Your task to perform on an android device: Do I have any events tomorrow? Image 0: 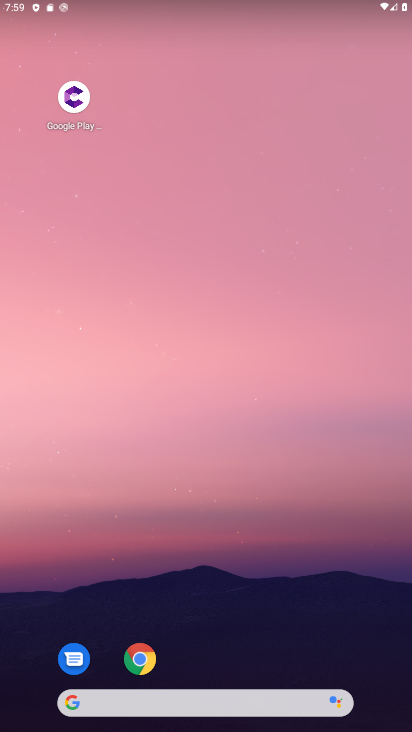
Step 0: drag from (239, 667) to (164, 176)
Your task to perform on an android device: Do I have any events tomorrow? Image 1: 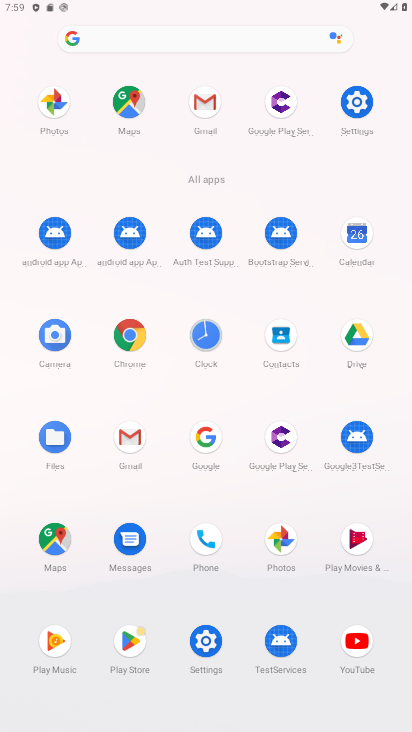
Step 1: click (348, 230)
Your task to perform on an android device: Do I have any events tomorrow? Image 2: 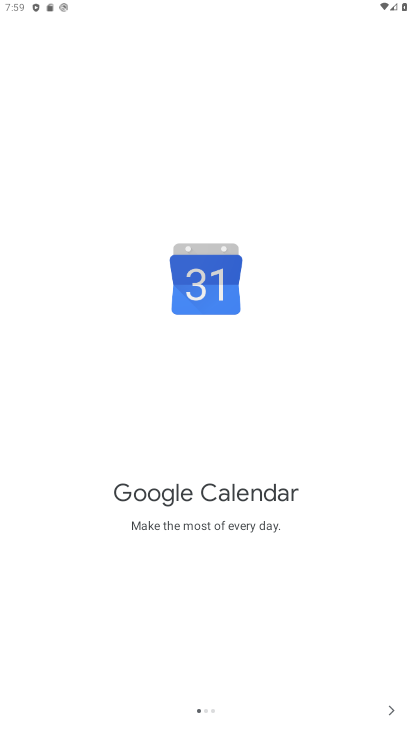
Step 2: click (385, 705)
Your task to perform on an android device: Do I have any events tomorrow? Image 3: 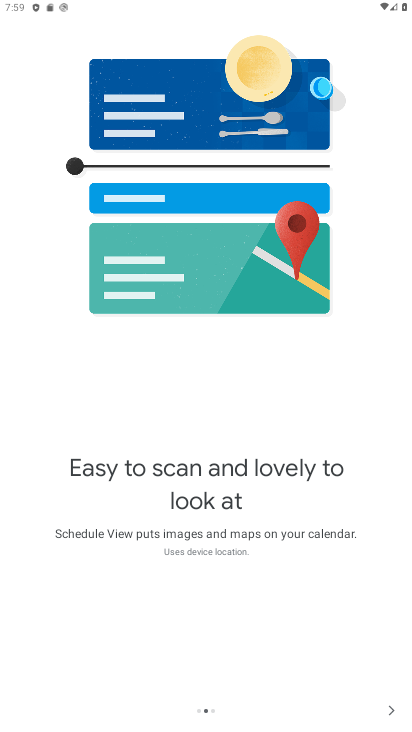
Step 3: click (385, 705)
Your task to perform on an android device: Do I have any events tomorrow? Image 4: 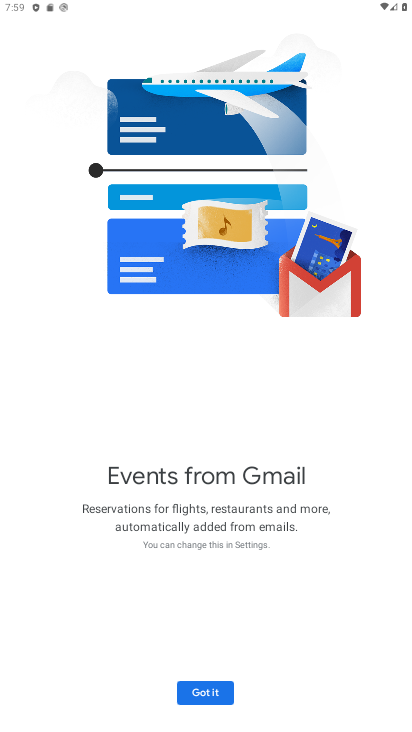
Step 4: click (212, 689)
Your task to perform on an android device: Do I have any events tomorrow? Image 5: 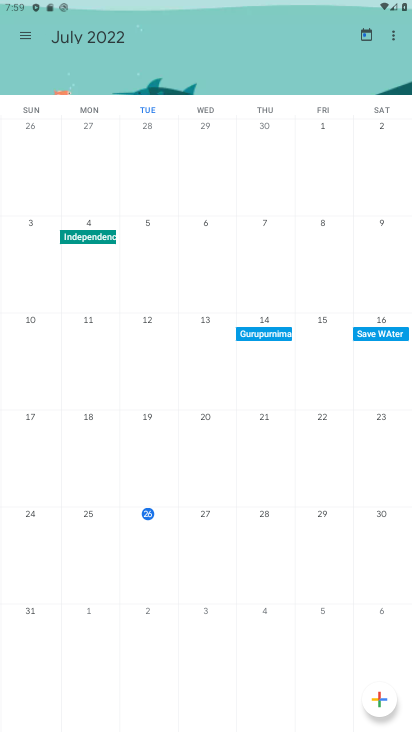
Step 5: click (201, 522)
Your task to perform on an android device: Do I have any events tomorrow? Image 6: 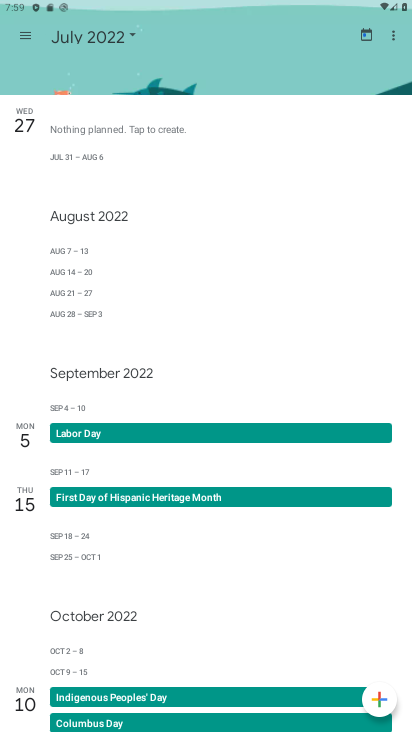
Step 6: task complete